Your task to perform on an android device: manage bookmarks in the chrome app Image 0: 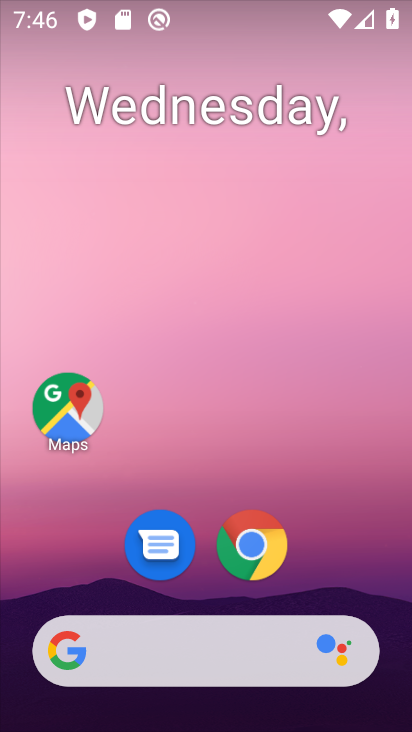
Step 0: drag from (249, 702) to (122, 324)
Your task to perform on an android device: manage bookmarks in the chrome app Image 1: 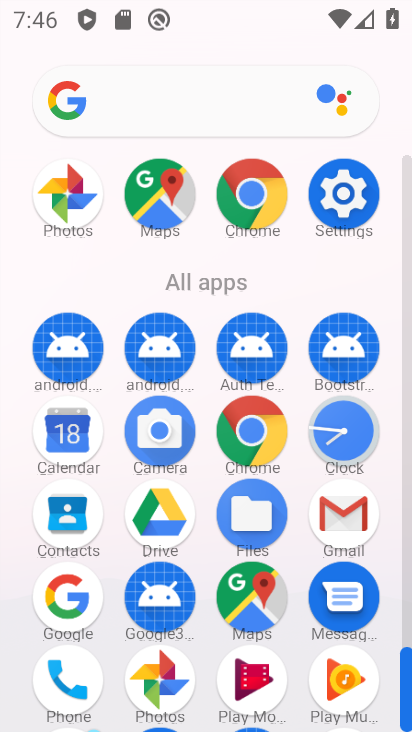
Step 1: click (259, 190)
Your task to perform on an android device: manage bookmarks in the chrome app Image 2: 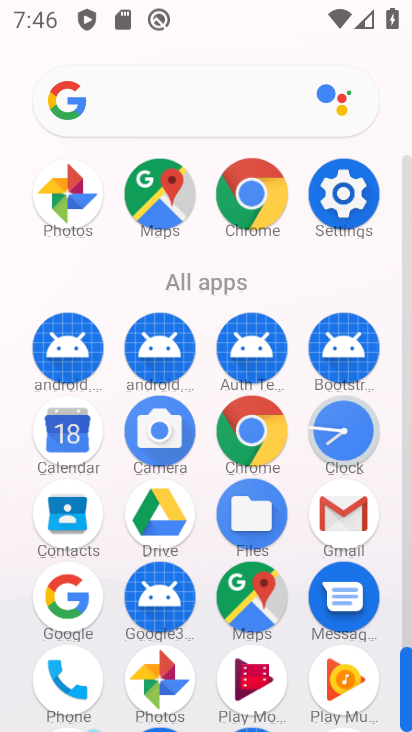
Step 2: click (256, 189)
Your task to perform on an android device: manage bookmarks in the chrome app Image 3: 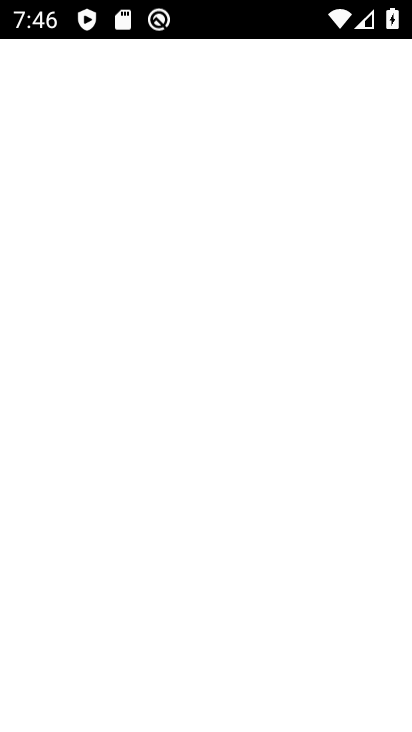
Step 3: click (254, 189)
Your task to perform on an android device: manage bookmarks in the chrome app Image 4: 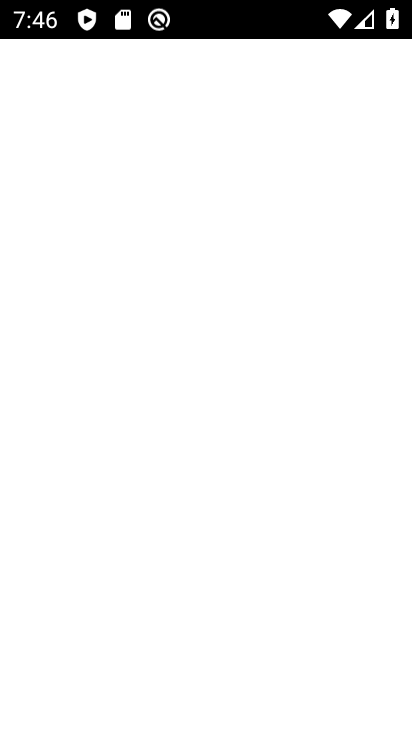
Step 4: click (253, 188)
Your task to perform on an android device: manage bookmarks in the chrome app Image 5: 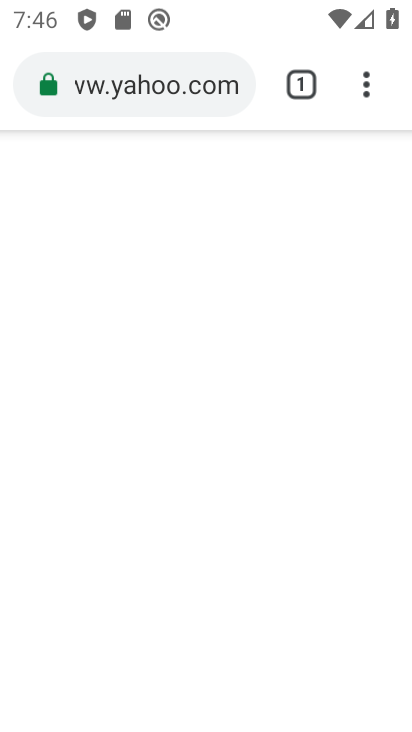
Step 5: click (365, 79)
Your task to perform on an android device: manage bookmarks in the chrome app Image 6: 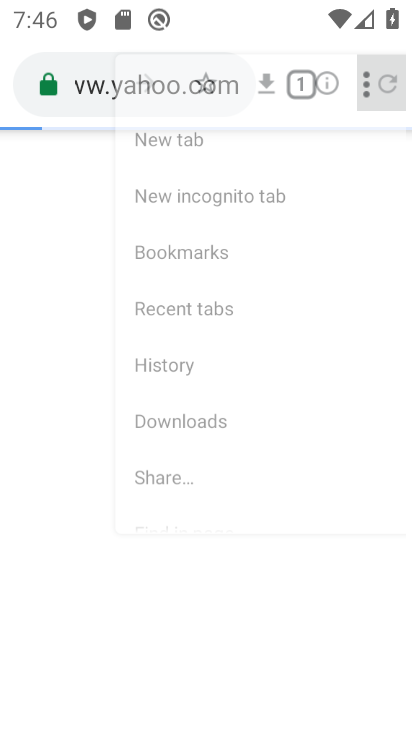
Step 6: click (365, 80)
Your task to perform on an android device: manage bookmarks in the chrome app Image 7: 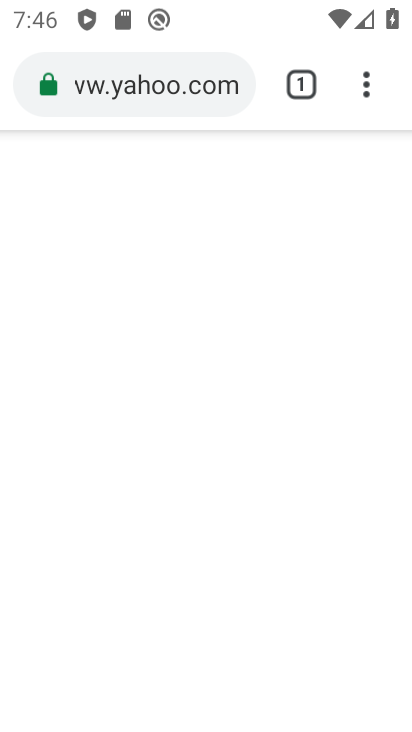
Step 7: drag from (364, 91) to (85, 325)
Your task to perform on an android device: manage bookmarks in the chrome app Image 8: 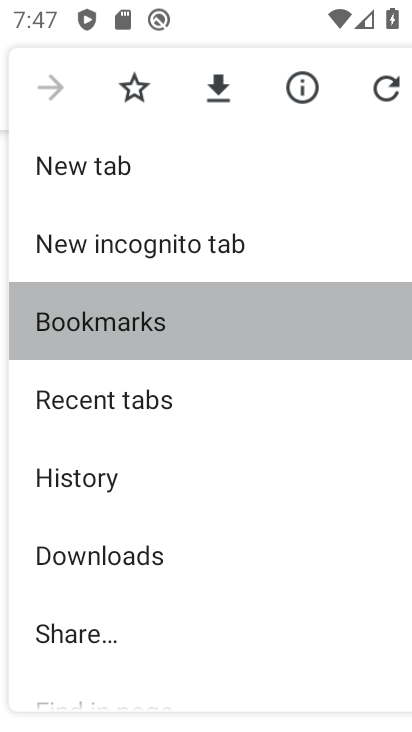
Step 8: click (83, 331)
Your task to perform on an android device: manage bookmarks in the chrome app Image 9: 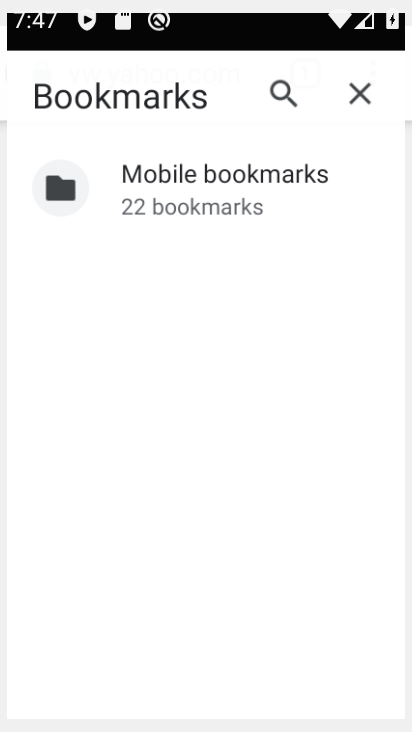
Step 9: click (82, 344)
Your task to perform on an android device: manage bookmarks in the chrome app Image 10: 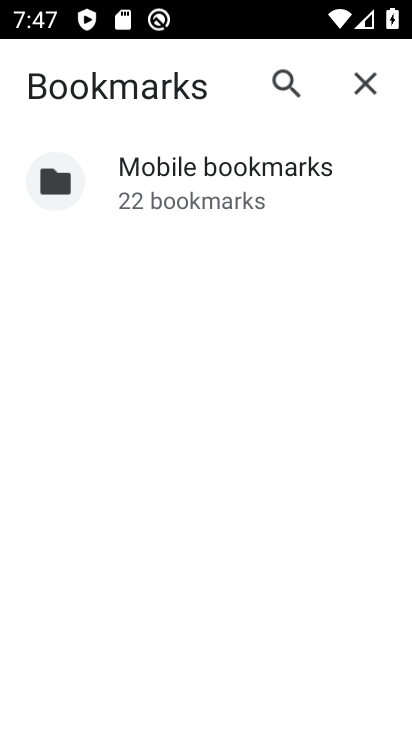
Step 10: click (265, 154)
Your task to perform on an android device: manage bookmarks in the chrome app Image 11: 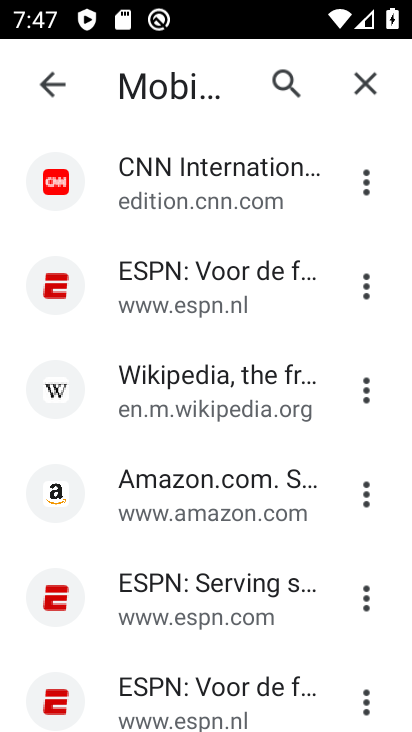
Step 11: click (264, 161)
Your task to perform on an android device: manage bookmarks in the chrome app Image 12: 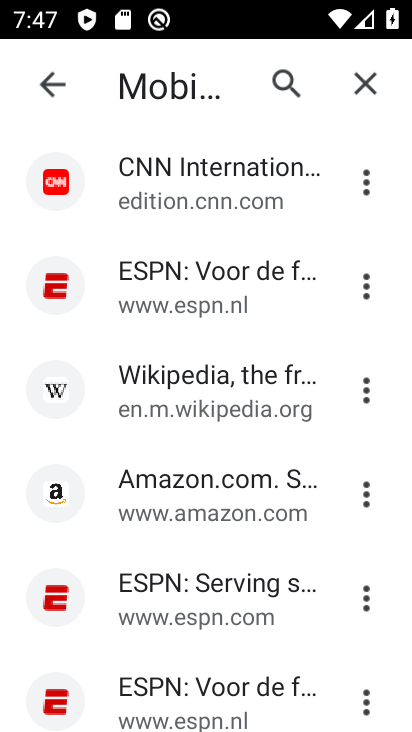
Step 12: click (252, 183)
Your task to perform on an android device: manage bookmarks in the chrome app Image 13: 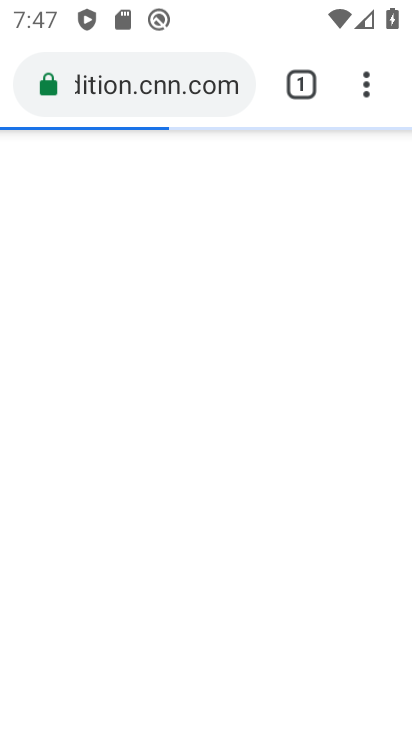
Step 13: click (357, 179)
Your task to perform on an android device: manage bookmarks in the chrome app Image 14: 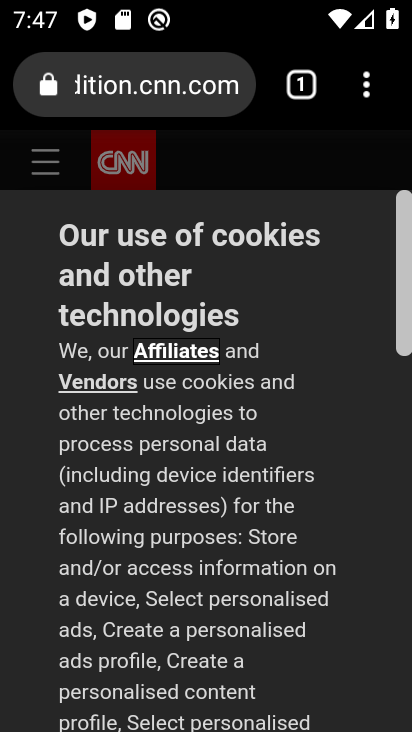
Step 14: press back button
Your task to perform on an android device: manage bookmarks in the chrome app Image 15: 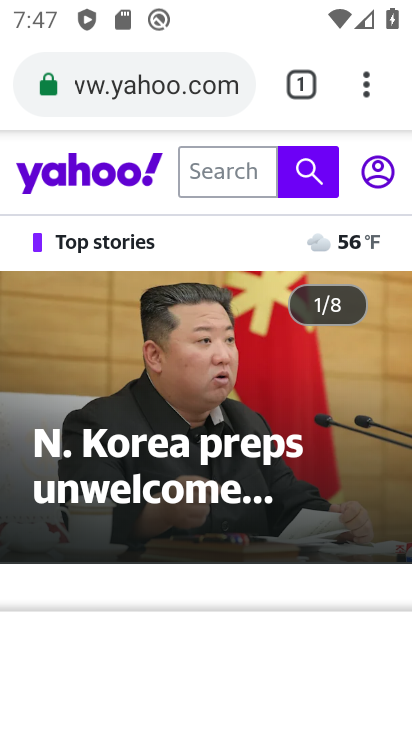
Step 15: click (367, 84)
Your task to perform on an android device: manage bookmarks in the chrome app Image 16: 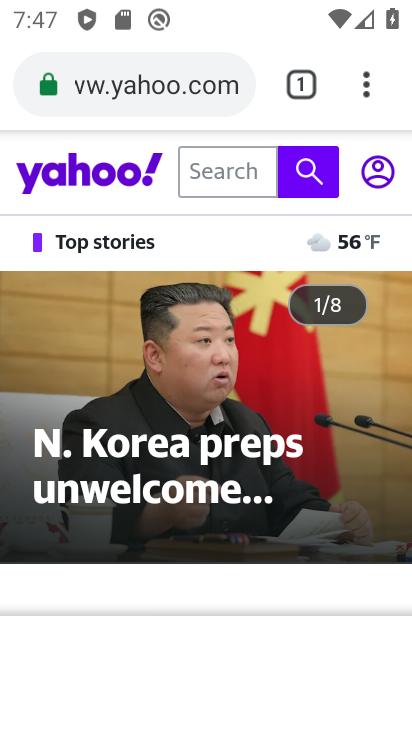
Step 16: drag from (360, 79) to (62, 324)
Your task to perform on an android device: manage bookmarks in the chrome app Image 17: 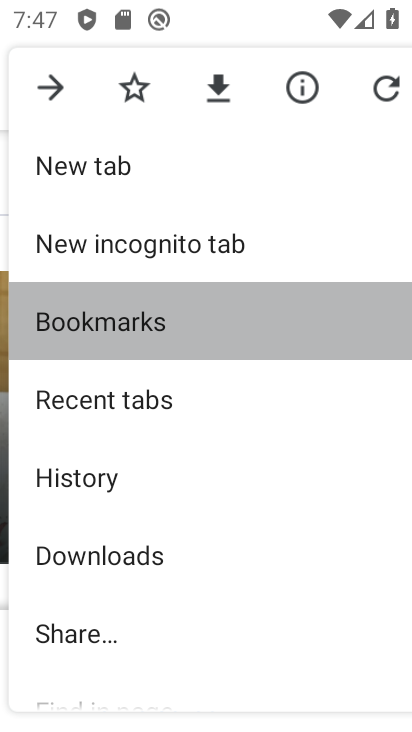
Step 17: click (63, 322)
Your task to perform on an android device: manage bookmarks in the chrome app Image 18: 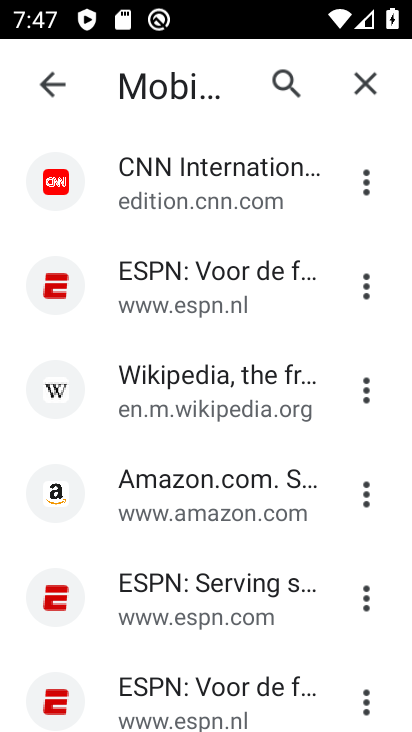
Step 18: click (362, 185)
Your task to perform on an android device: manage bookmarks in the chrome app Image 19: 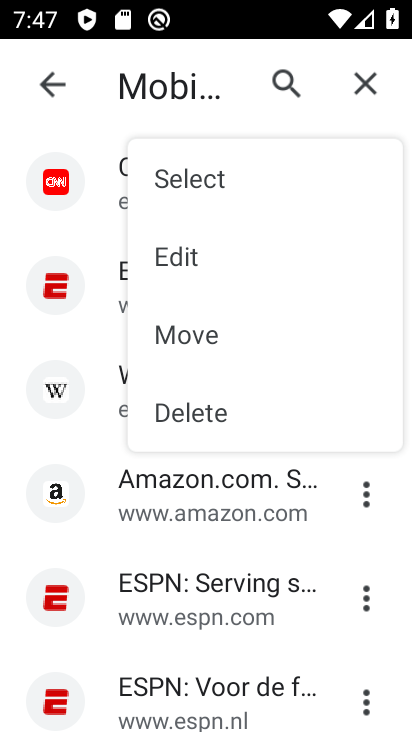
Step 19: click (176, 401)
Your task to perform on an android device: manage bookmarks in the chrome app Image 20: 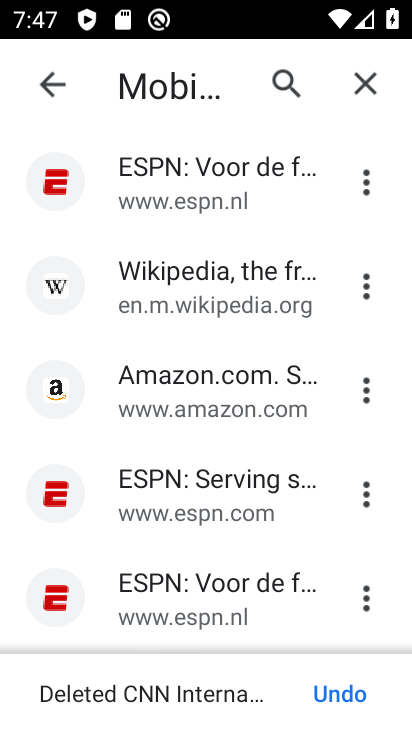
Step 20: task complete